Your task to perform on an android device: Go to Amazon Image 0: 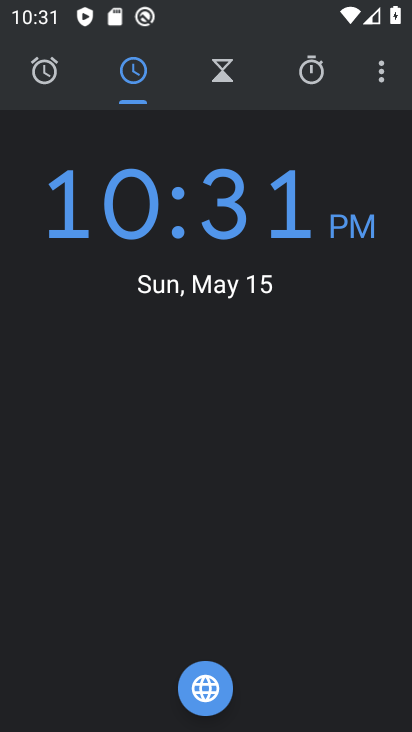
Step 0: press home button
Your task to perform on an android device: Go to Amazon Image 1: 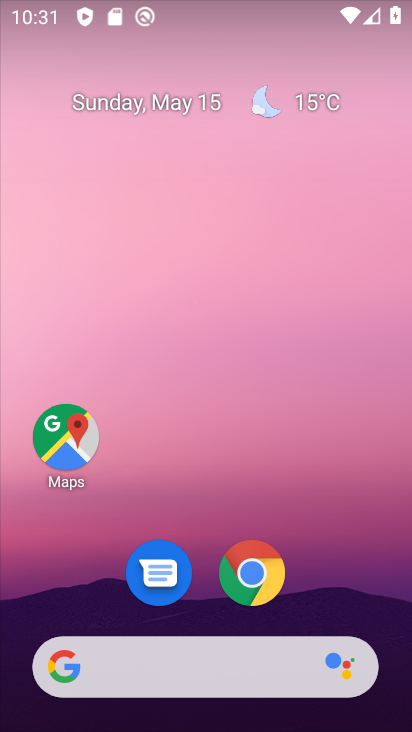
Step 1: click (259, 592)
Your task to perform on an android device: Go to Amazon Image 2: 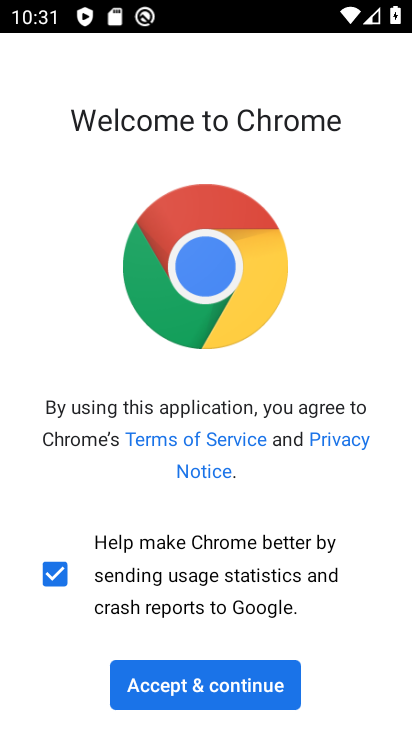
Step 2: click (235, 700)
Your task to perform on an android device: Go to Amazon Image 3: 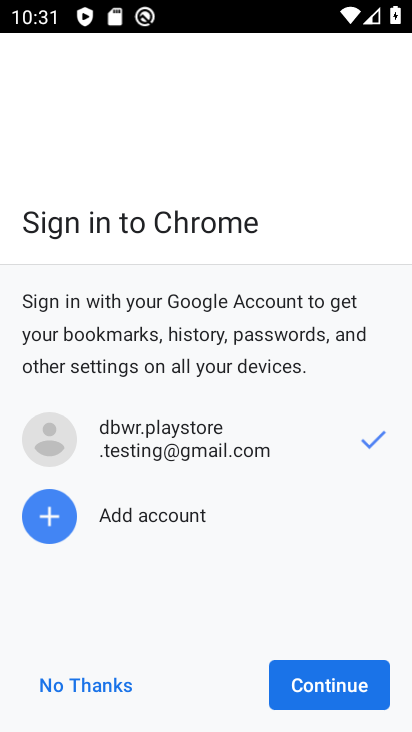
Step 3: click (297, 696)
Your task to perform on an android device: Go to Amazon Image 4: 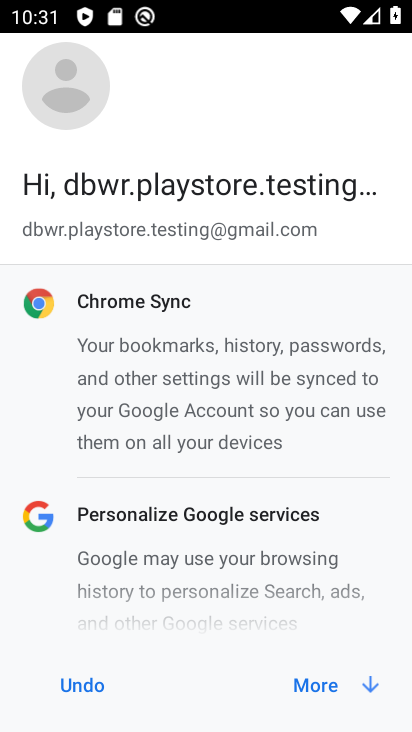
Step 4: click (310, 694)
Your task to perform on an android device: Go to Amazon Image 5: 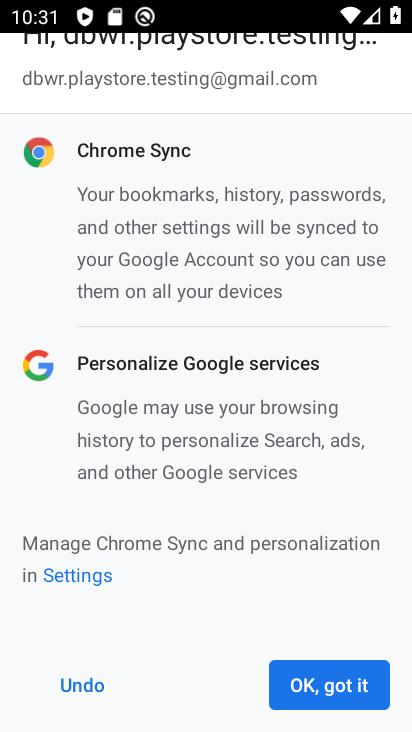
Step 5: click (310, 694)
Your task to perform on an android device: Go to Amazon Image 6: 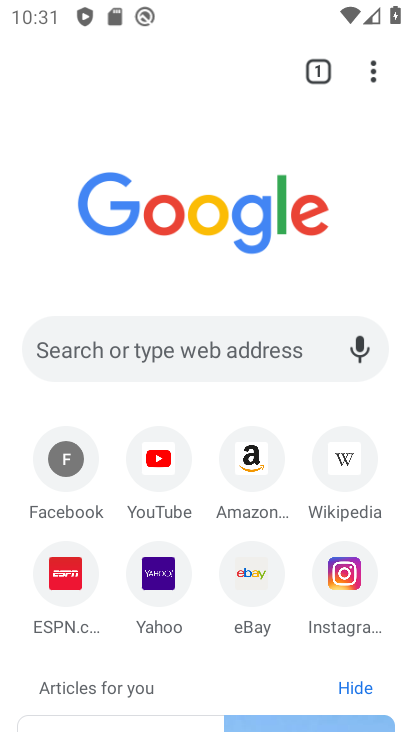
Step 6: click (258, 472)
Your task to perform on an android device: Go to Amazon Image 7: 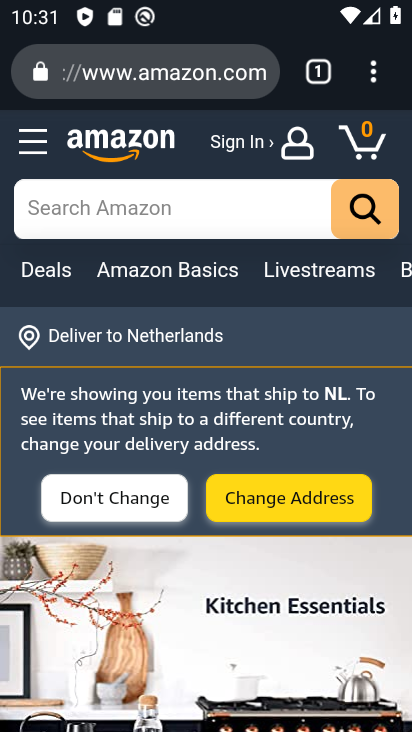
Step 7: task complete